Your task to perform on an android device: Open Reddit.com Image 0: 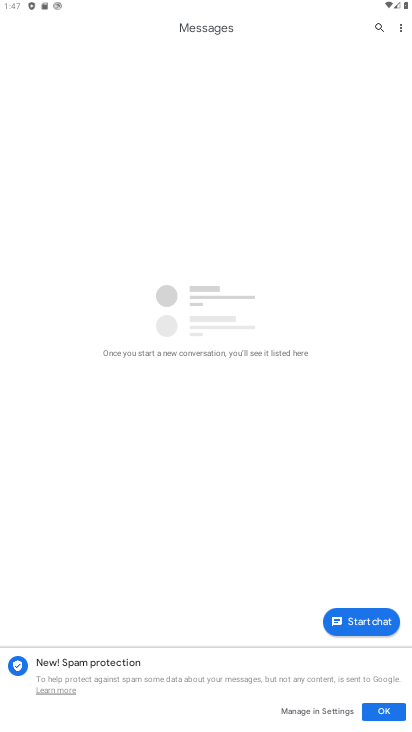
Step 0: press home button
Your task to perform on an android device: Open Reddit.com Image 1: 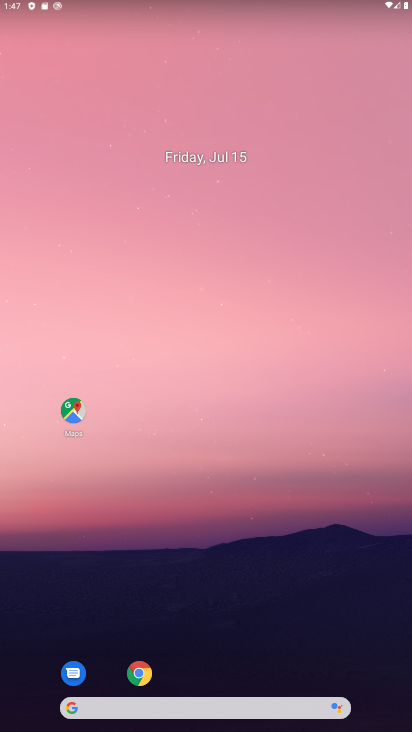
Step 1: drag from (317, 607) to (2, 290)
Your task to perform on an android device: Open Reddit.com Image 2: 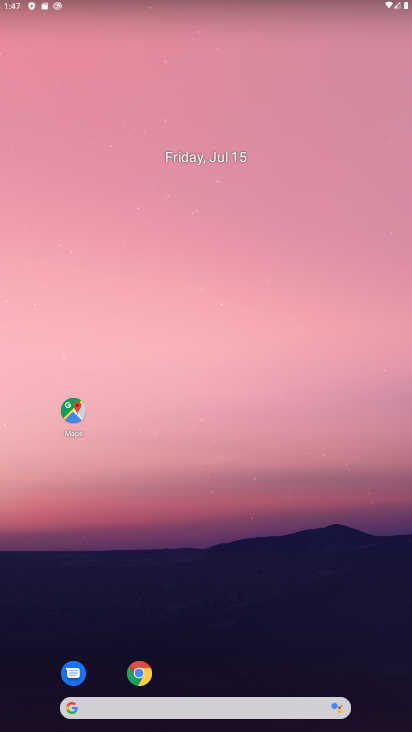
Step 2: drag from (249, 475) to (173, 1)
Your task to perform on an android device: Open Reddit.com Image 3: 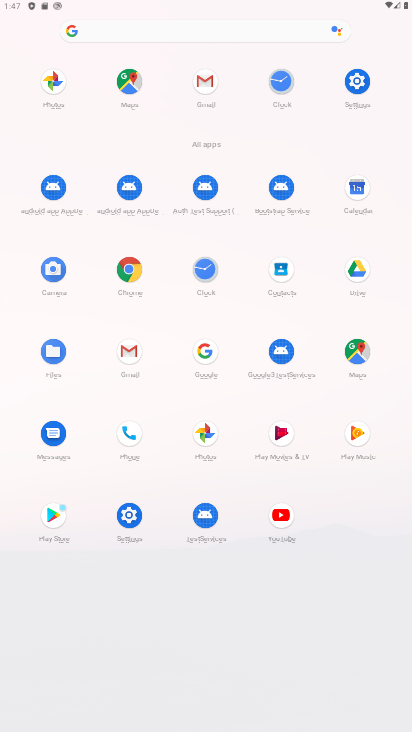
Step 3: click (136, 271)
Your task to perform on an android device: Open Reddit.com Image 4: 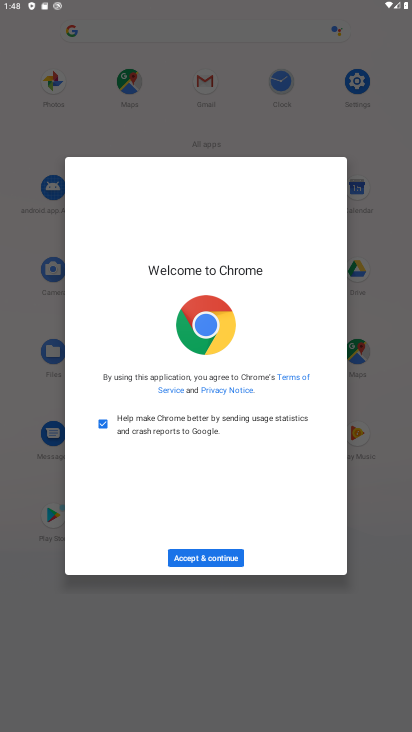
Step 4: click (207, 555)
Your task to perform on an android device: Open Reddit.com Image 5: 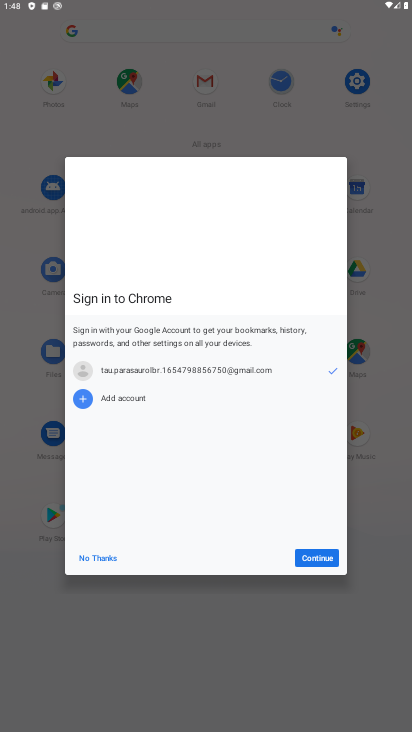
Step 5: click (96, 553)
Your task to perform on an android device: Open Reddit.com Image 6: 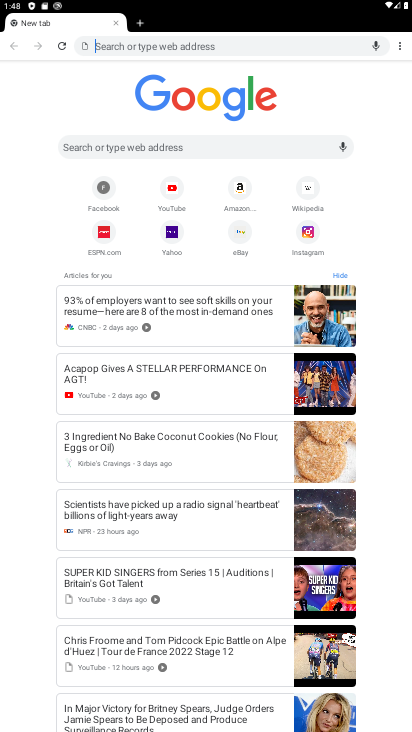
Step 6: click (127, 148)
Your task to perform on an android device: Open Reddit.com Image 7: 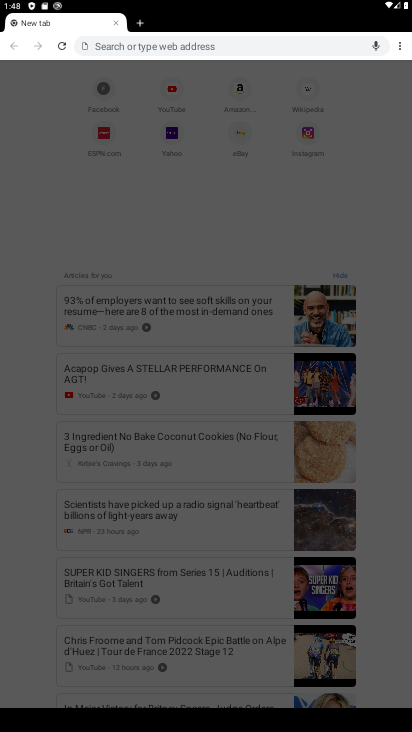
Step 7: type "Reddit.com"
Your task to perform on an android device: Open Reddit.com Image 8: 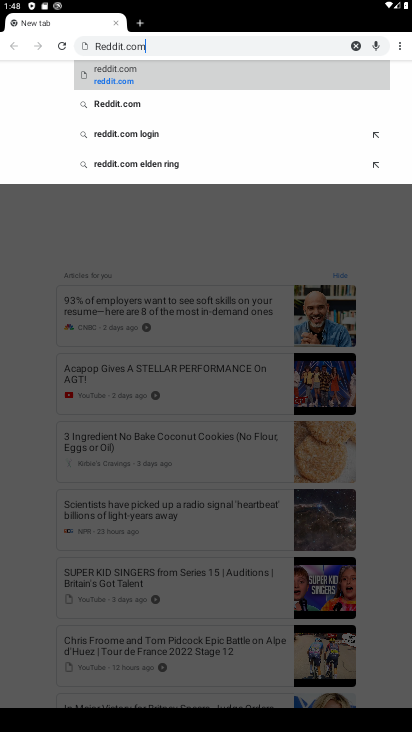
Step 8: press enter
Your task to perform on an android device: Open Reddit.com Image 9: 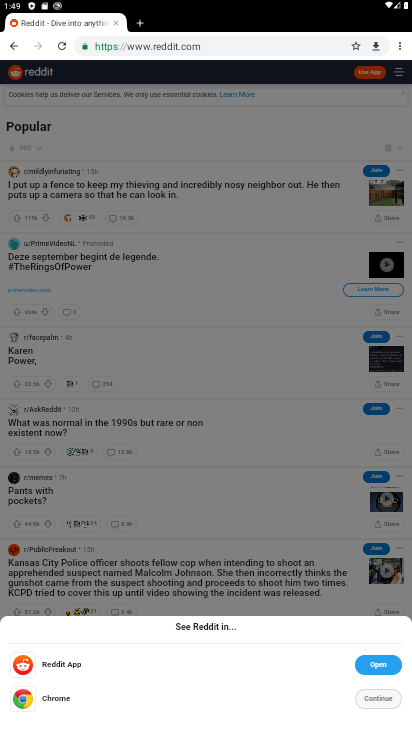
Step 9: task complete